Your task to perform on an android device: Go to network settings Image 0: 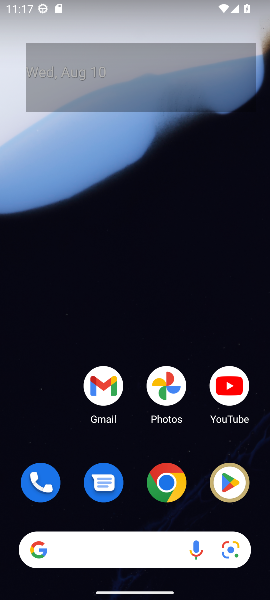
Step 0: drag from (52, 388) to (74, 117)
Your task to perform on an android device: Go to network settings Image 1: 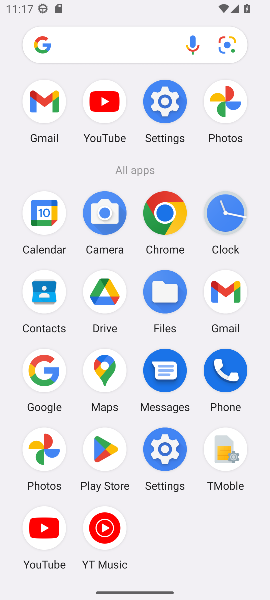
Step 1: click (176, 456)
Your task to perform on an android device: Go to network settings Image 2: 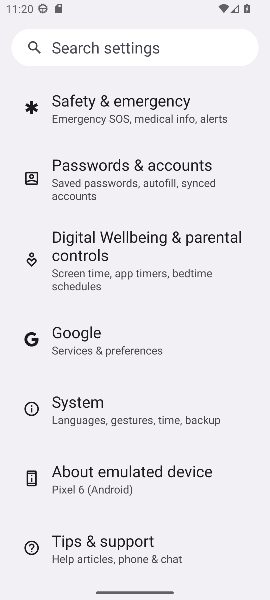
Step 2: task complete